Your task to perform on an android device: delete location history Image 0: 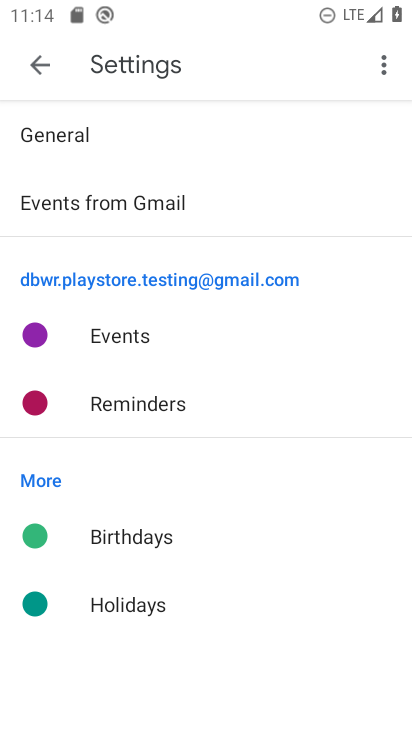
Step 0: press home button
Your task to perform on an android device: delete location history Image 1: 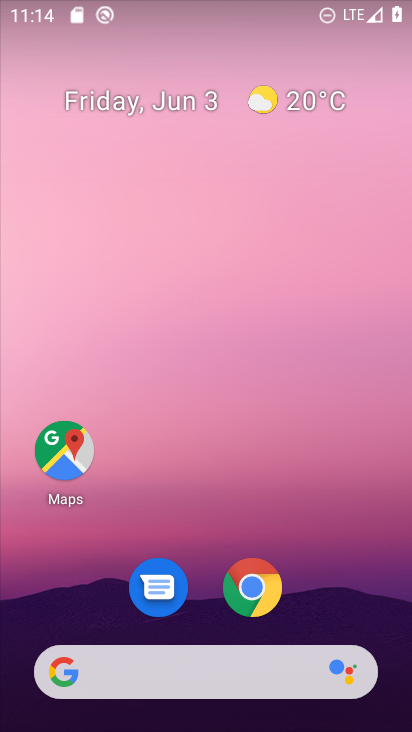
Step 1: drag from (330, 558) to (266, 0)
Your task to perform on an android device: delete location history Image 2: 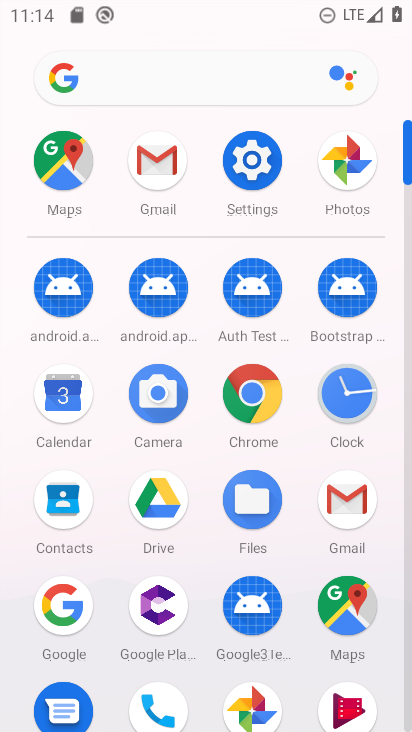
Step 2: click (246, 171)
Your task to perform on an android device: delete location history Image 3: 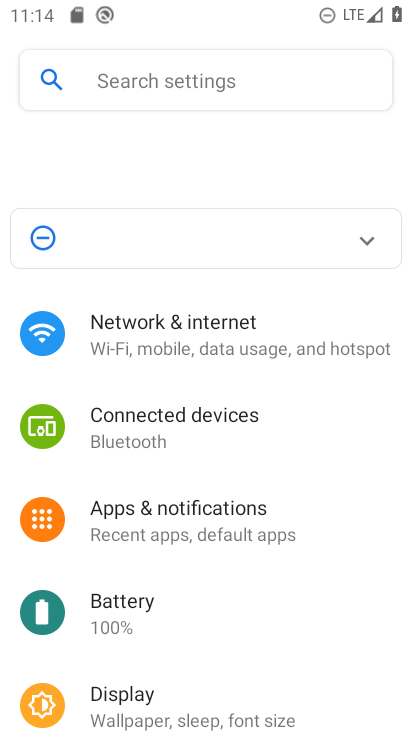
Step 3: drag from (293, 608) to (272, 23)
Your task to perform on an android device: delete location history Image 4: 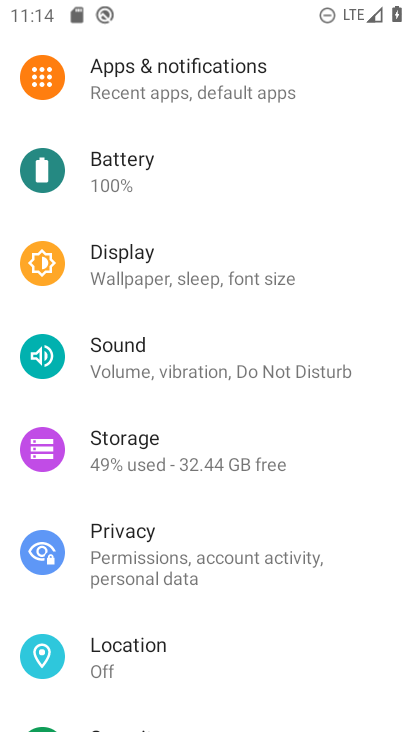
Step 4: click (154, 689)
Your task to perform on an android device: delete location history Image 5: 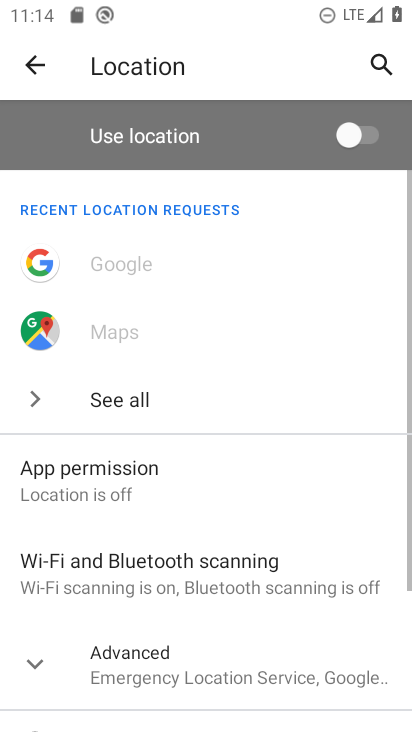
Step 5: drag from (252, 541) to (270, 81)
Your task to perform on an android device: delete location history Image 6: 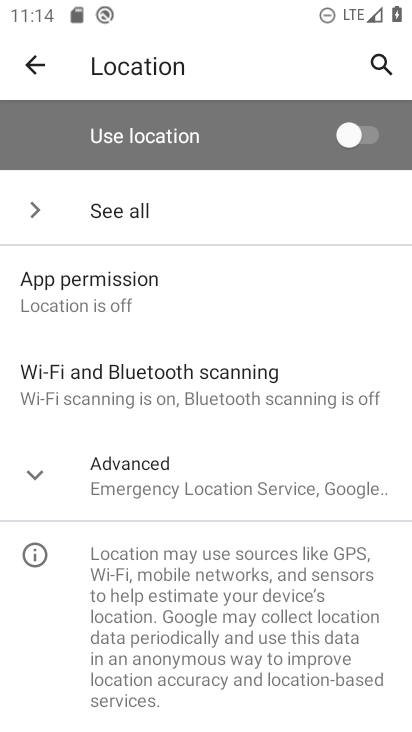
Step 6: click (160, 459)
Your task to perform on an android device: delete location history Image 7: 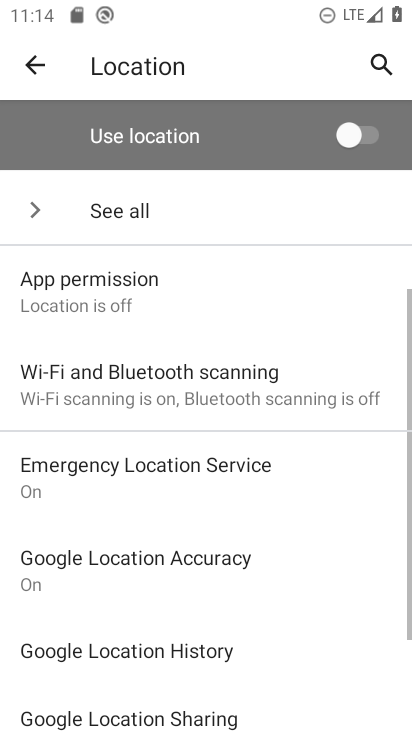
Step 7: drag from (206, 619) to (251, 194)
Your task to perform on an android device: delete location history Image 8: 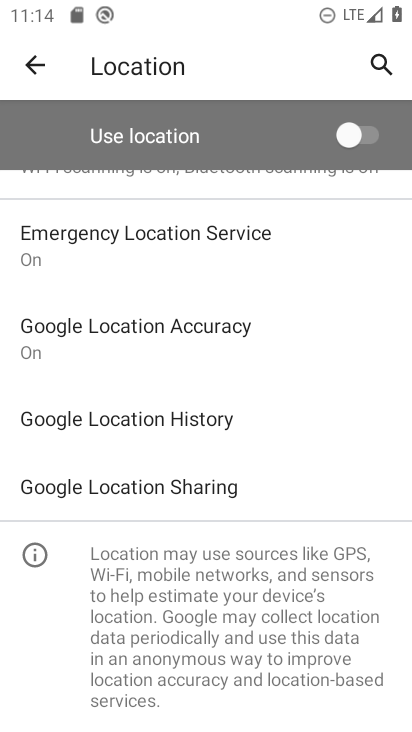
Step 8: click (188, 410)
Your task to perform on an android device: delete location history Image 9: 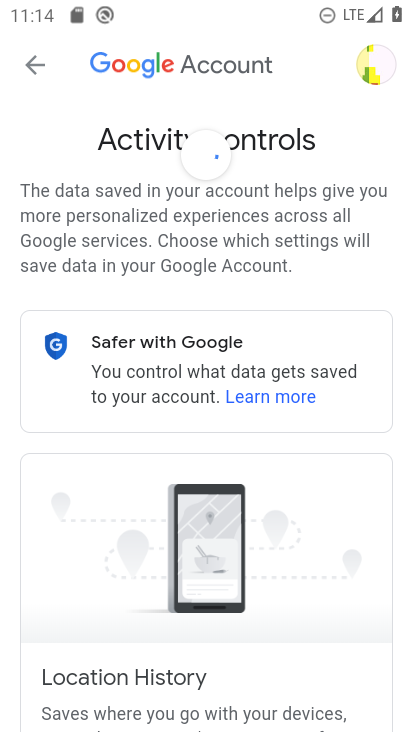
Step 9: drag from (186, 61) to (249, 113)
Your task to perform on an android device: delete location history Image 10: 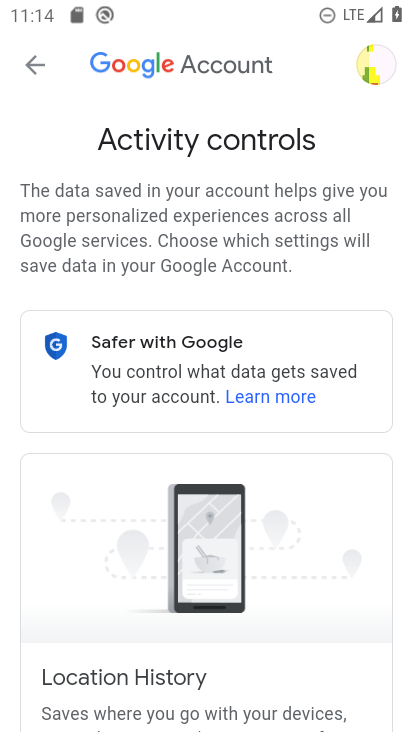
Step 10: drag from (316, 638) to (311, 66)
Your task to perform on an android device: delete location history Image 11: 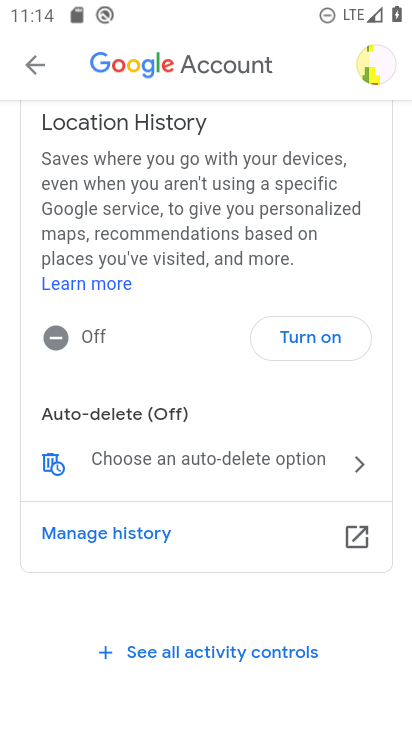
Step 11: click (44, 458)
Your task to perform on an android device: delete location history Image 12: 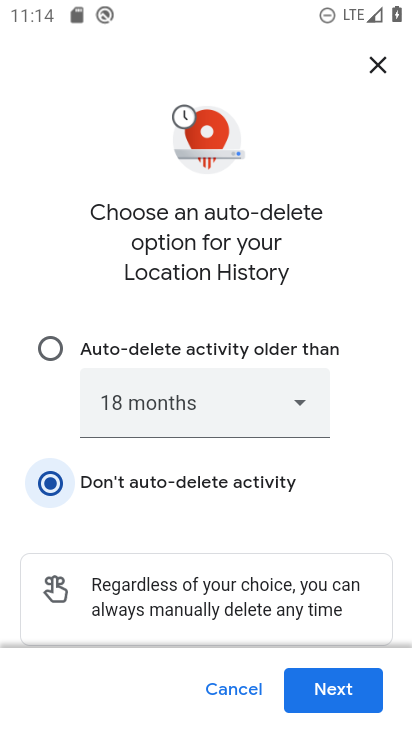
Step 12: click (323, 697)
Your task to perform on an android device: delete location history Image 13: 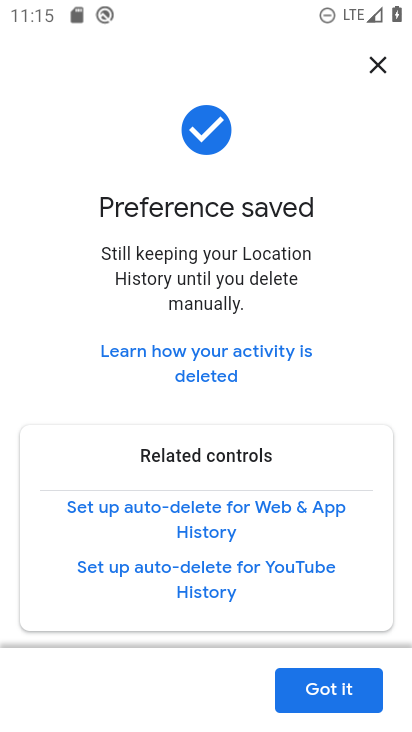
Step 13: click (340, 694)
Your task to perform on an android device: delete location history Image 14: 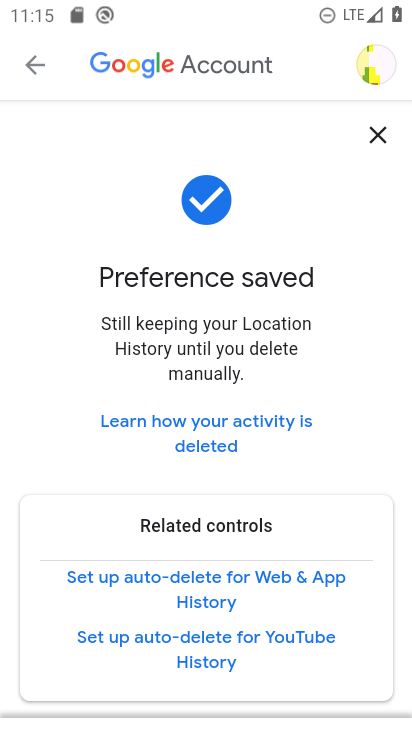
Step 14: task complete